Your task to perform on an android device: Open location settings Image 0: 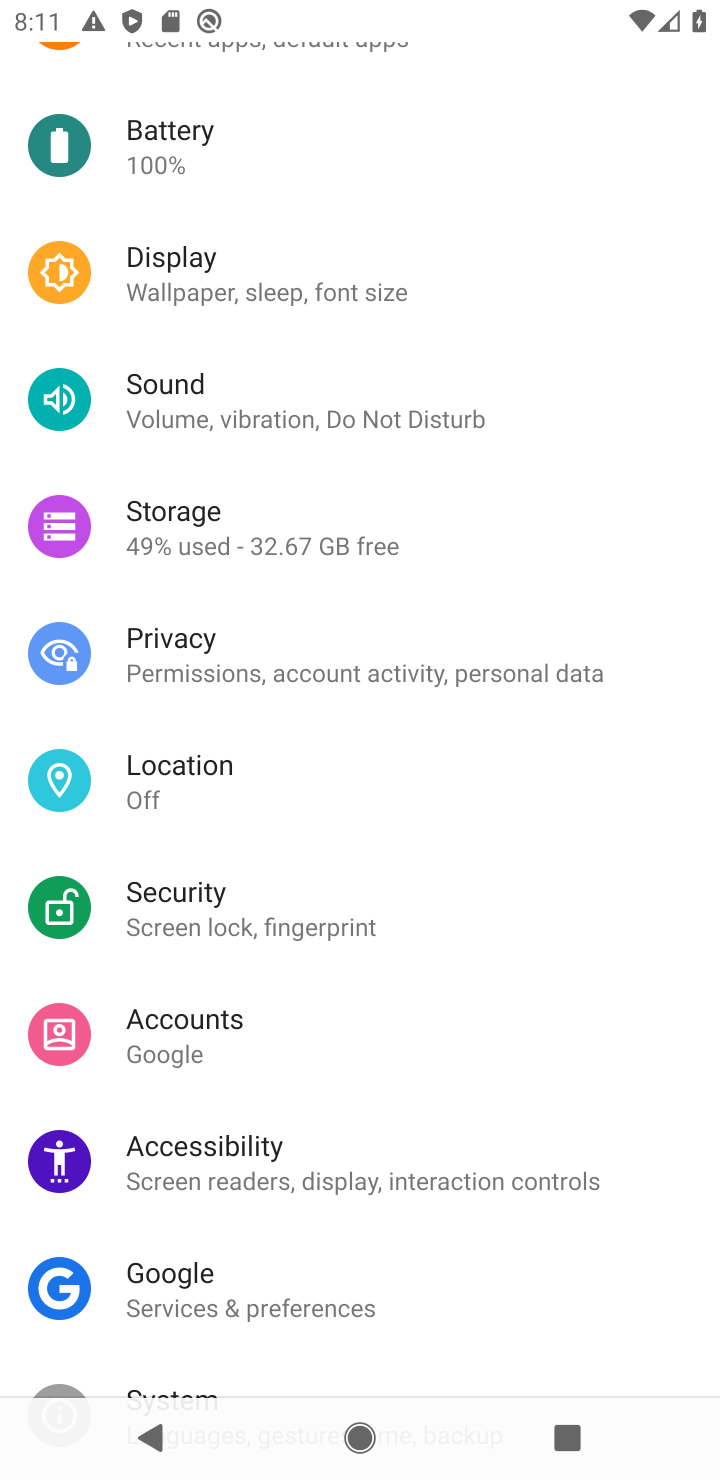
Step 0: click (166, 763)
Your task to perform on an android device: Open location settings Image 1: 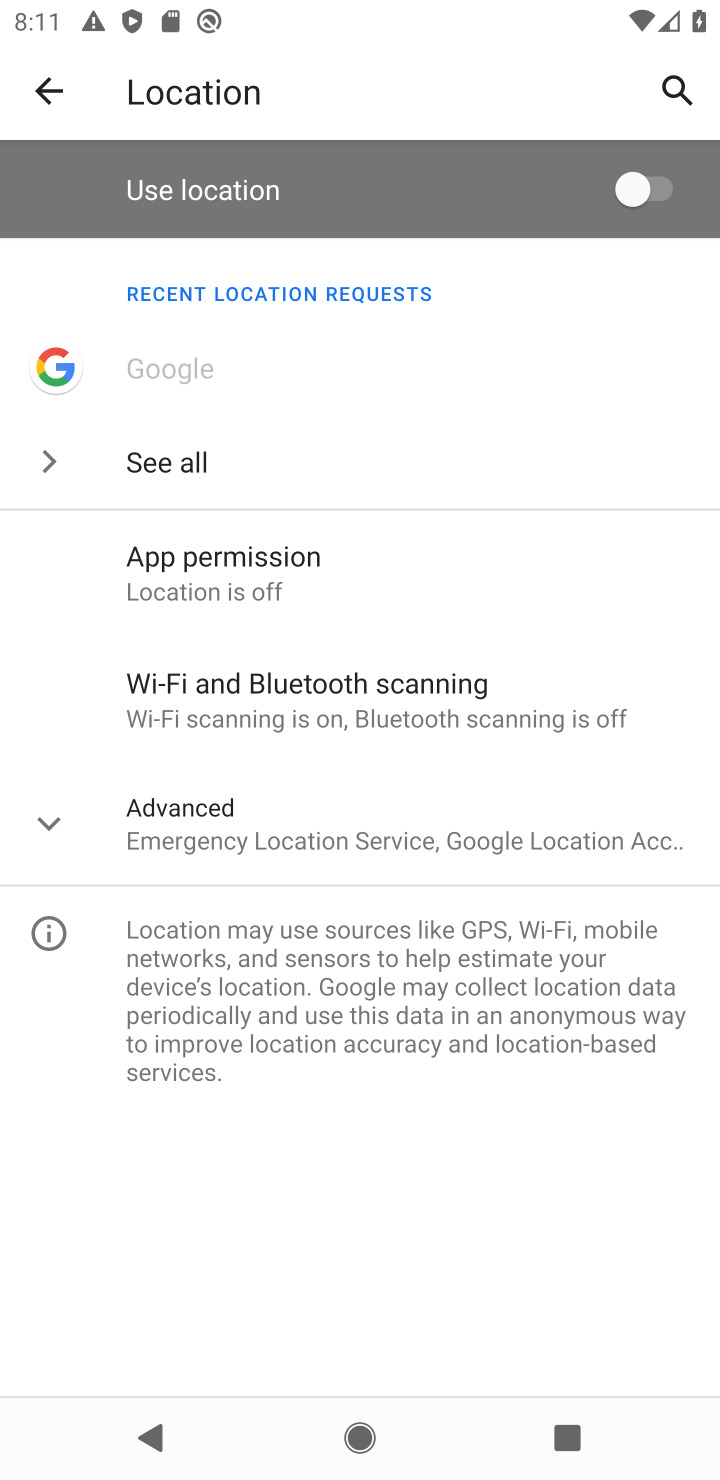
Step 1: task complete